Your task to perform on an android device: Open Google Image 0: 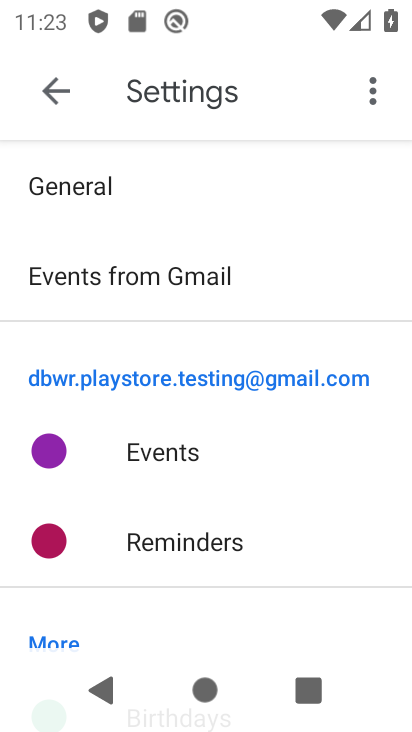
Step 0: press home button
Your task to perform on an android device: Open Google Image 1: 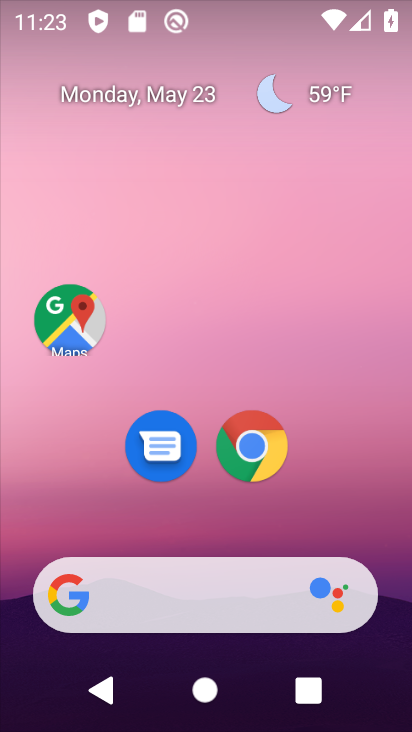
Step 1: drag from (142, 555) to (178, 164)
Your task to perform on an android device: Open Google Image 2: 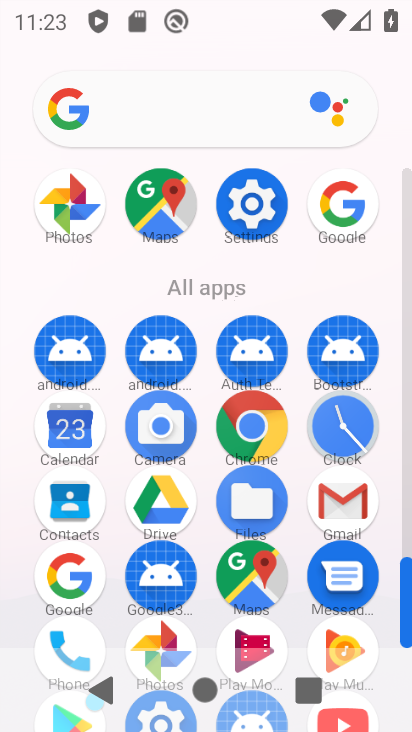
Step 2: click (78, 567)
Your task to perform on an android device: Open Google Image 3: 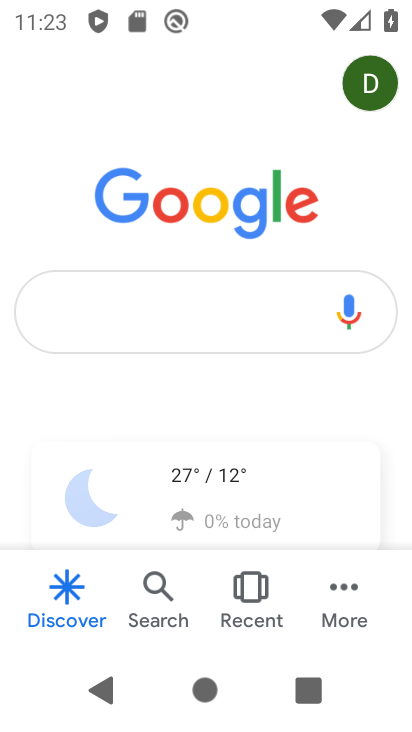
Step 3: task complete